Your task to perform on an android device: Search for the best way to get rid of a cold Image 0: 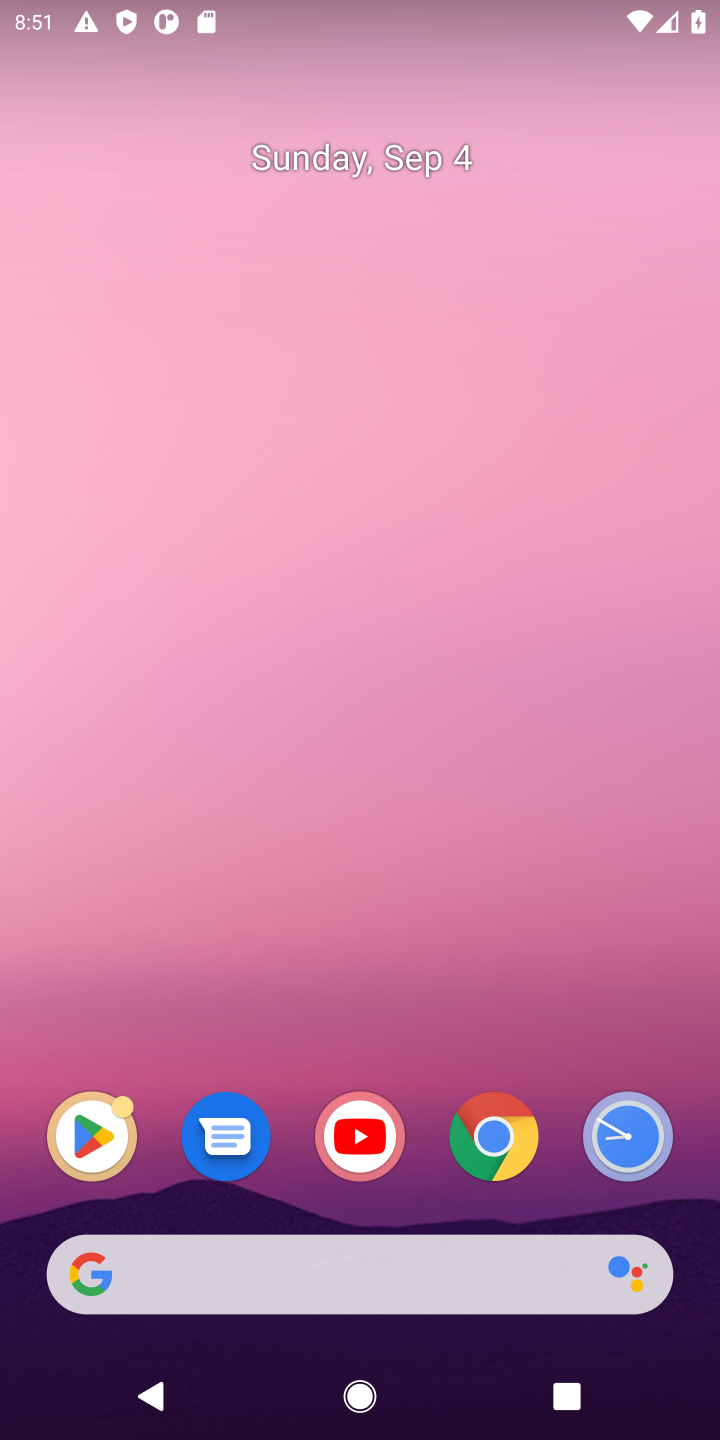
Step 0: drag from (414, 1026) to (371, 47)
Your task to perform on an android device: Search for the best way to get rid of a cold Image 1: 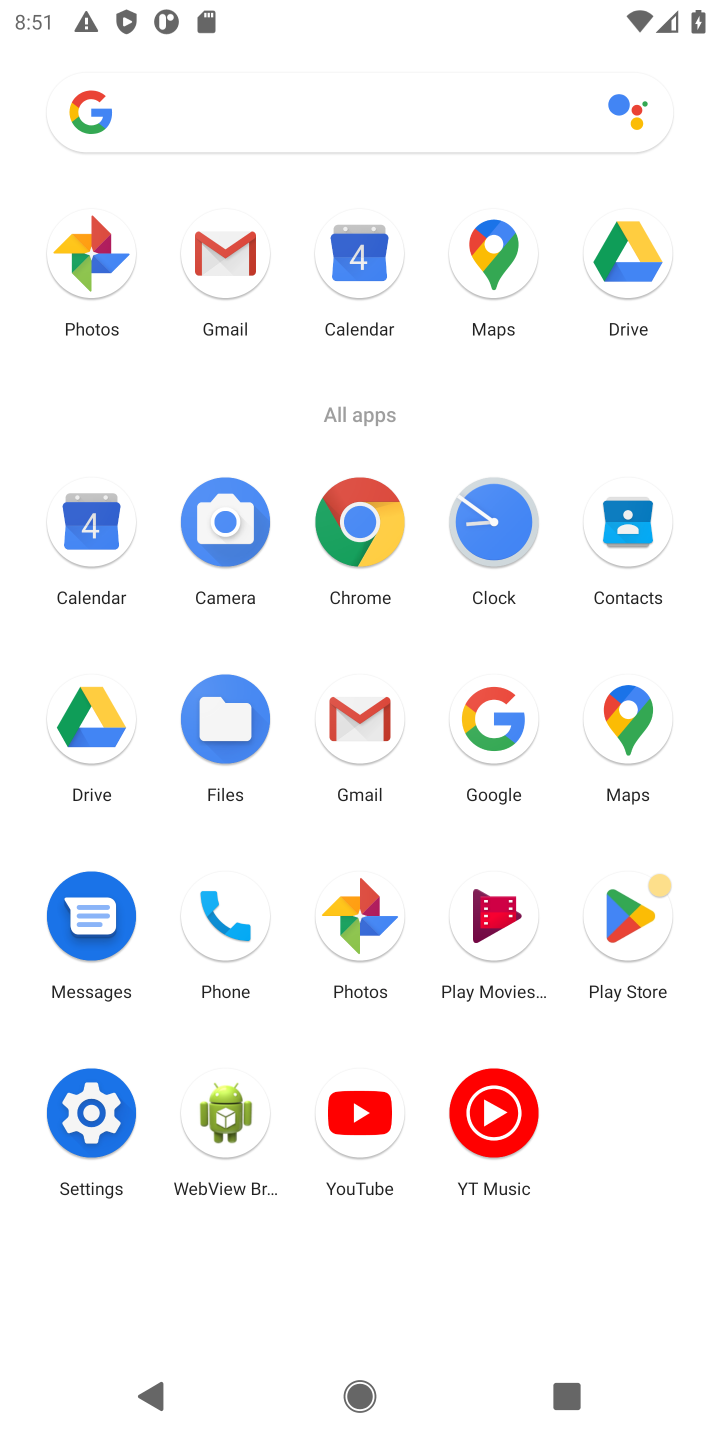
Step 1: click (491, 863)
Your task to perform on an android device: Search for the best way to get rid of a cold Image 2: 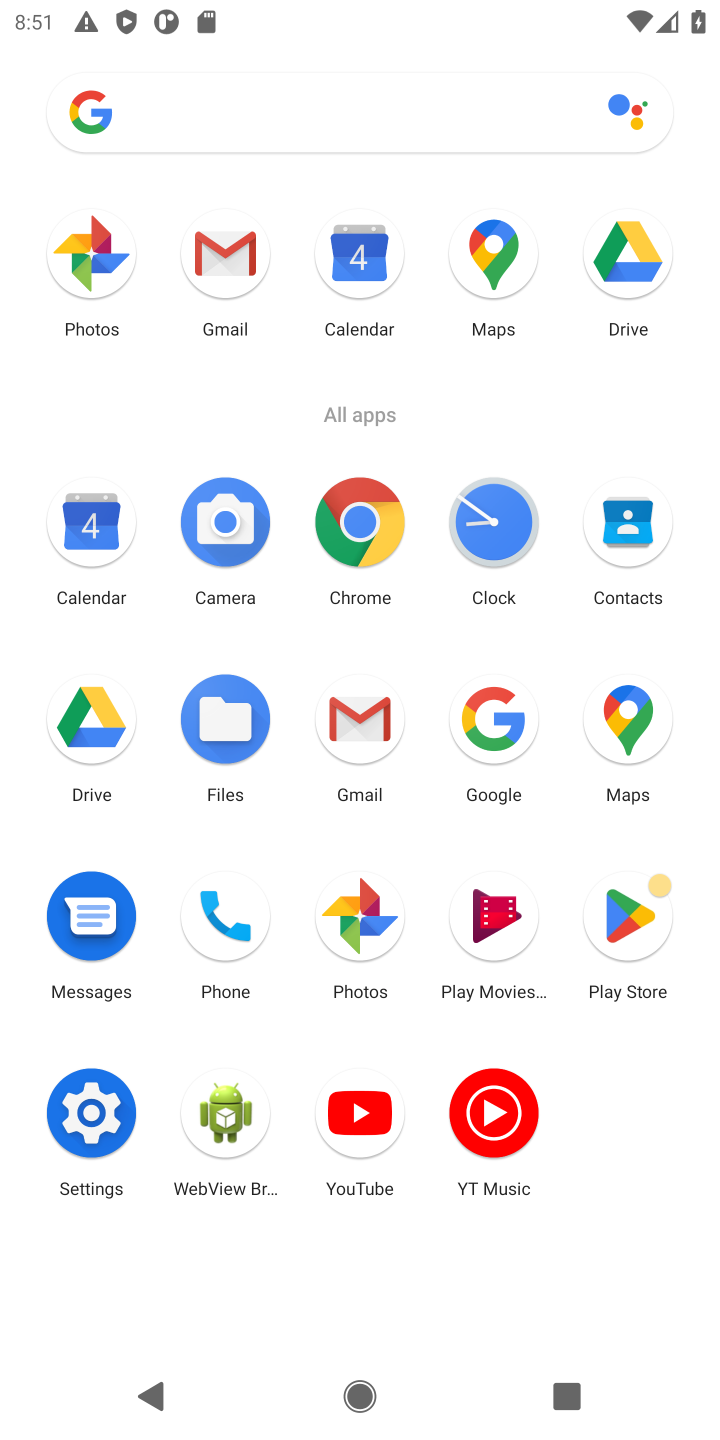
Step 2: click (486, 696)
Your task to perform on an android device: Search for the best way to get rid of a cold Image 3: 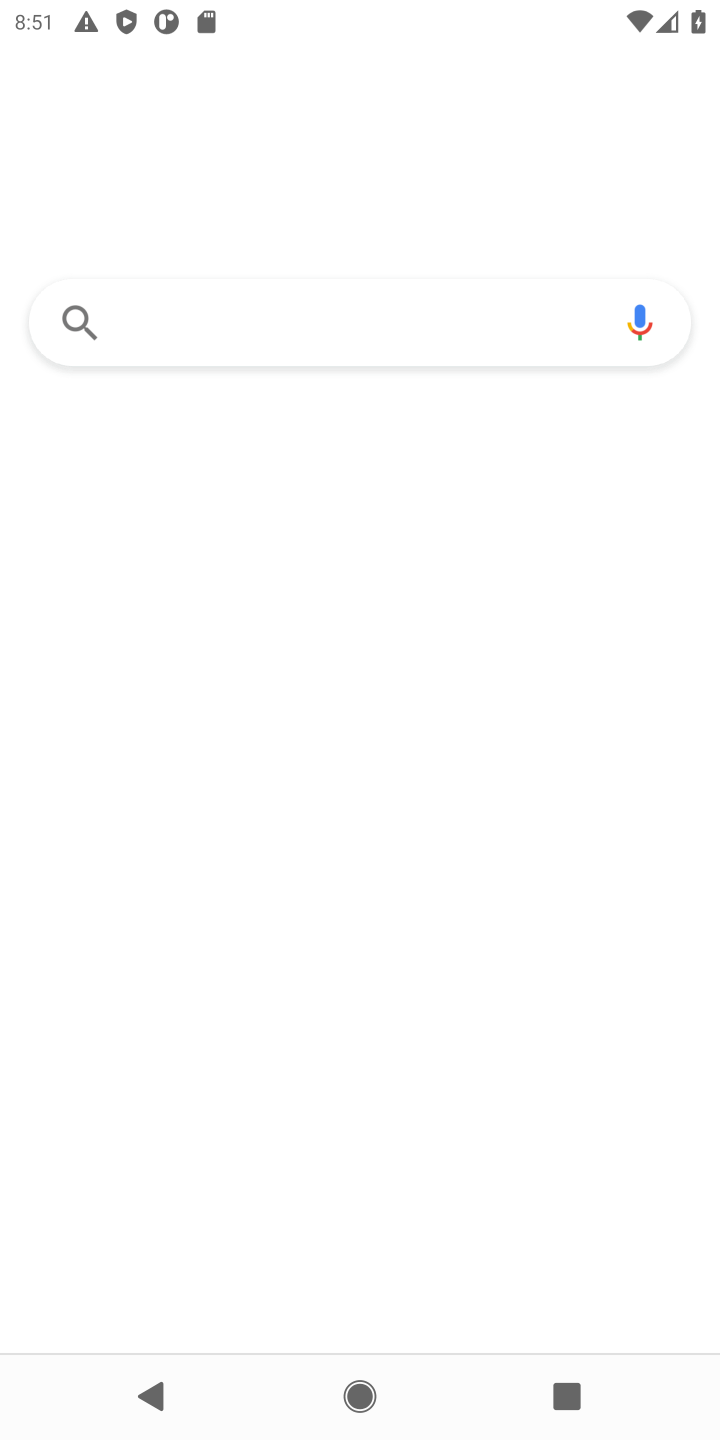
Step 3: click (486, 696)
Your task to perform on an android device: Search for the best way to get rid of a cold Image 4: 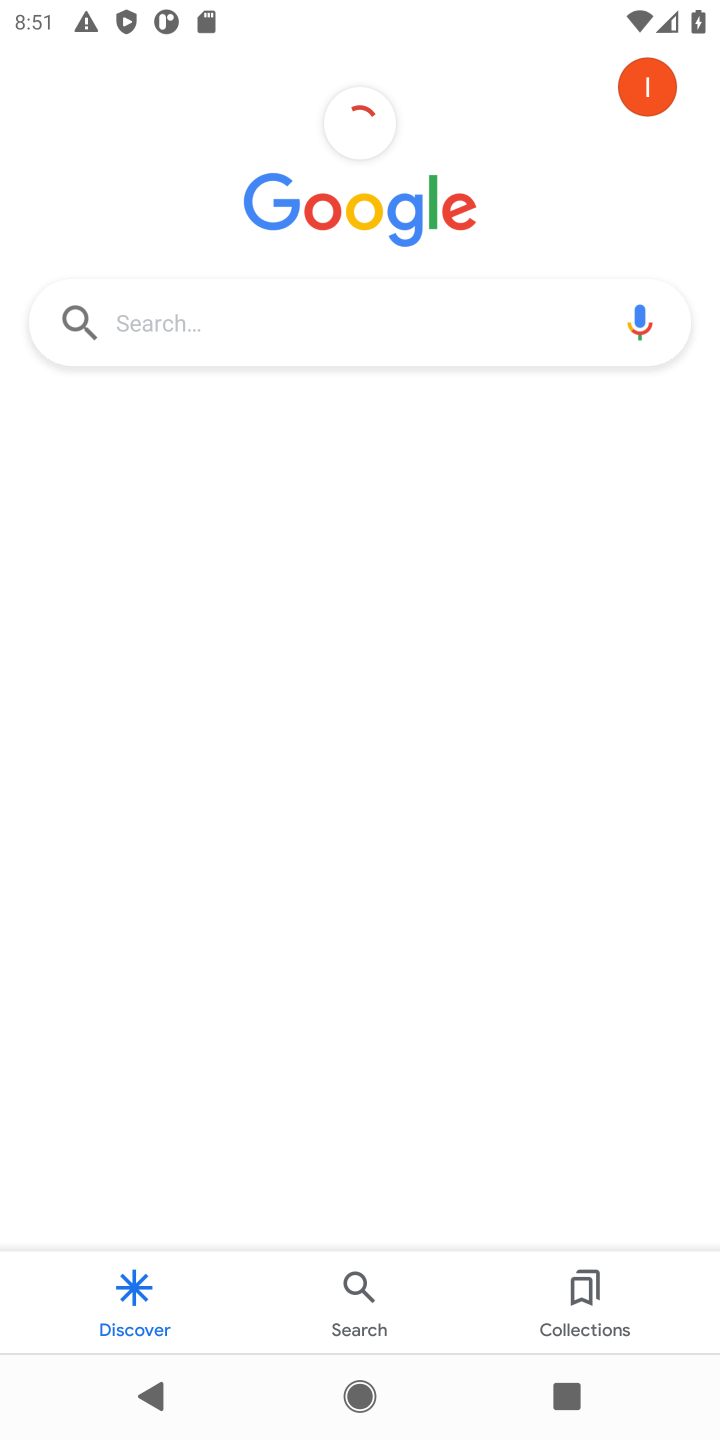
Step 4: click (316, 330)
Your task to perform on an android device: Search for the best way to get rid of a cold Image 5: 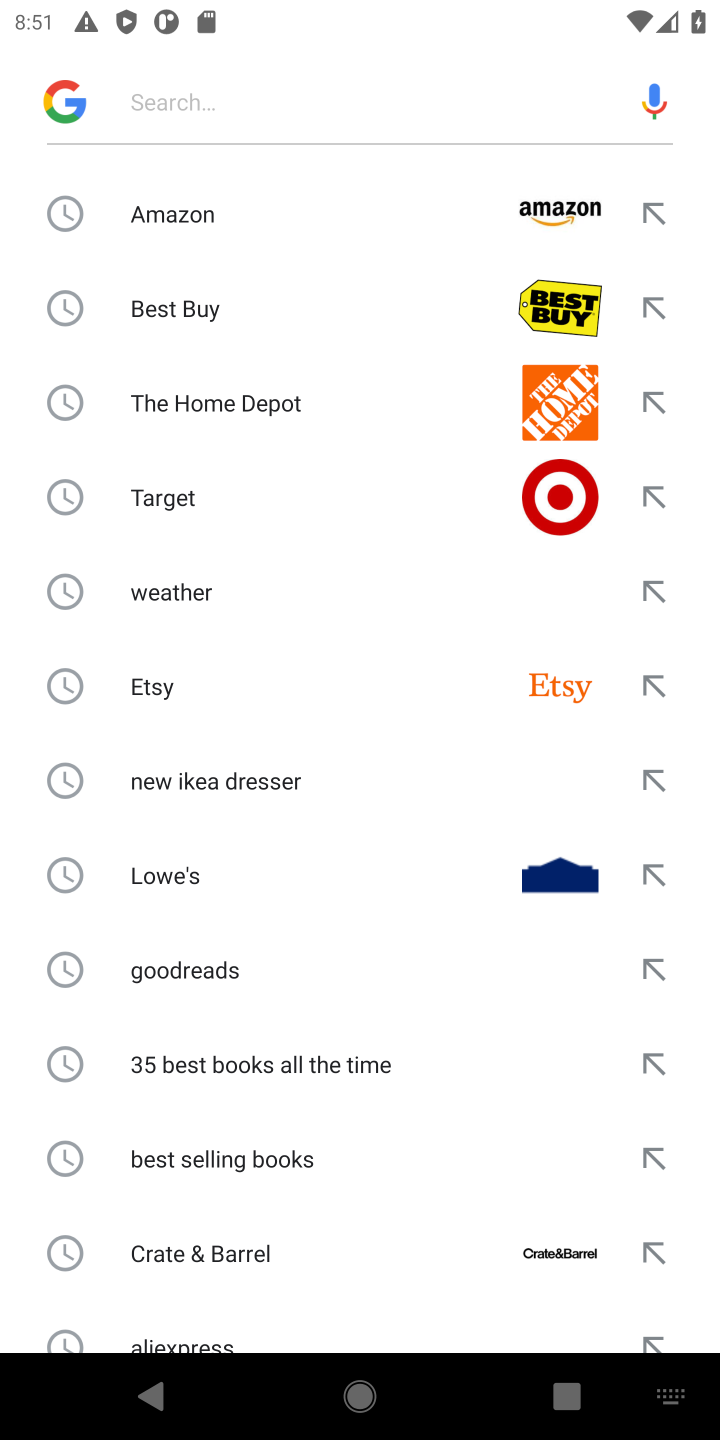
Step 5: type "the best way to get rid of a cold"
Your task to perform on an android device: Search for the best way to get rid of a cold Image 6: 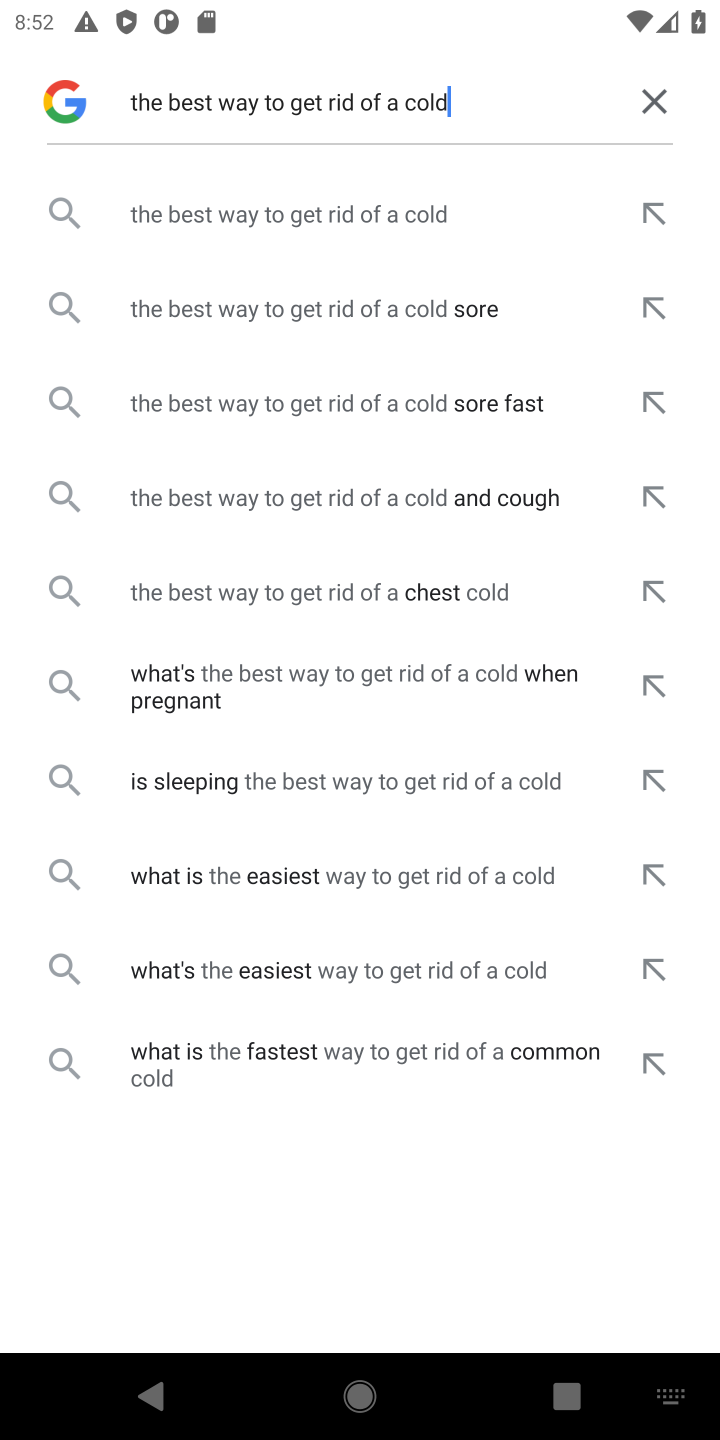
Step 6: click (303, 211)
Your task to perform on an android device: Search for the best way to get rid of a cold Image 7: 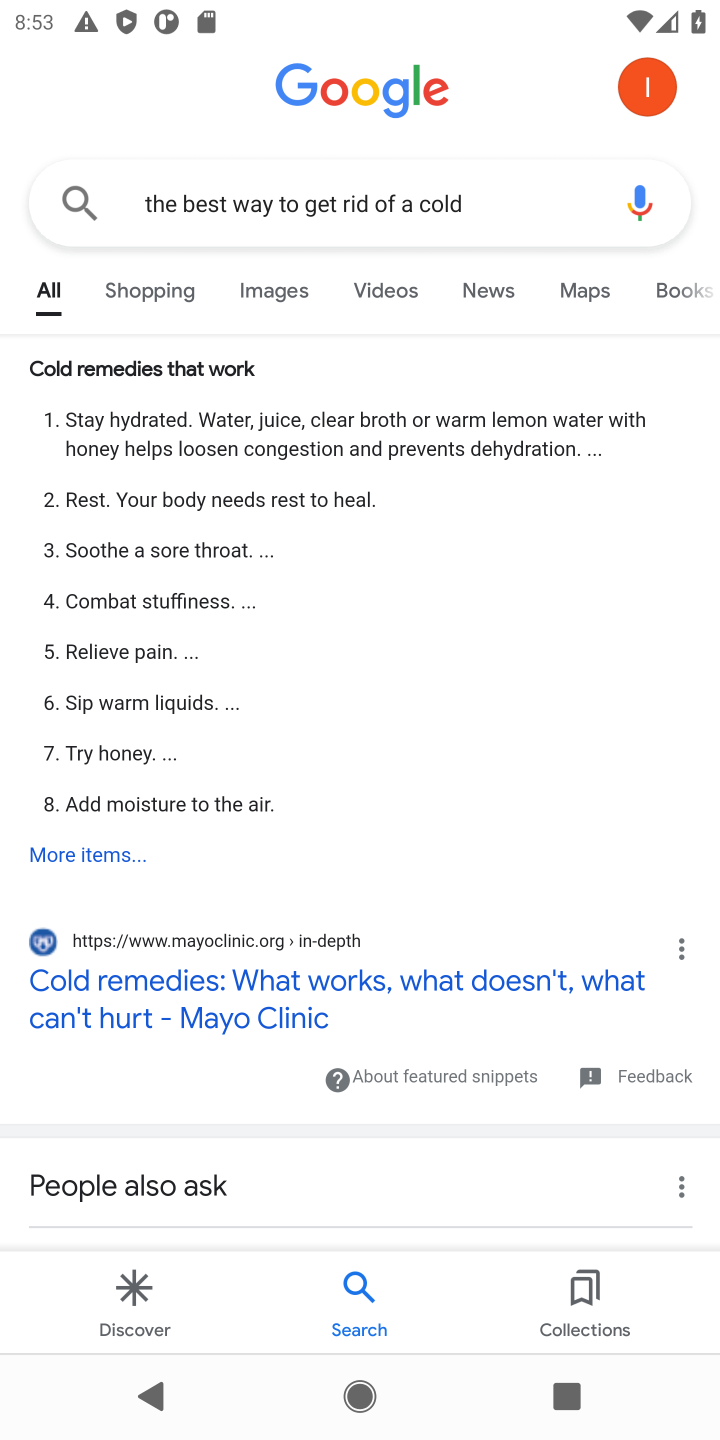
Step 7: task complete